Your task to perform on an android device: Open calendar and show me the fourth week of next month Image 0: 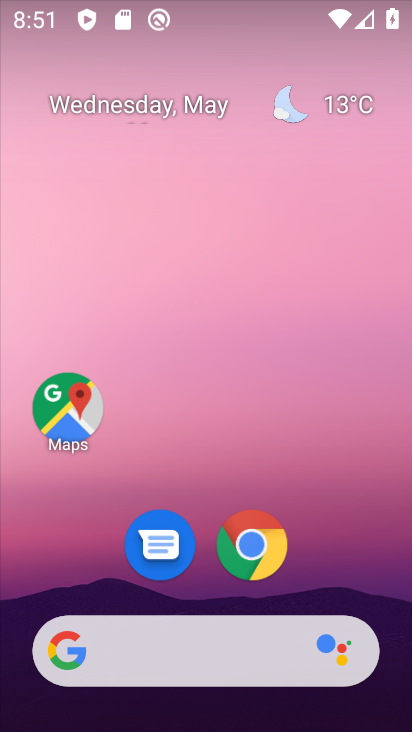
Step 0: drag from (329, 529) to (230, 24)
Your task to perform on an android device: Open calendar and show me the fourth week of next month Image 1: 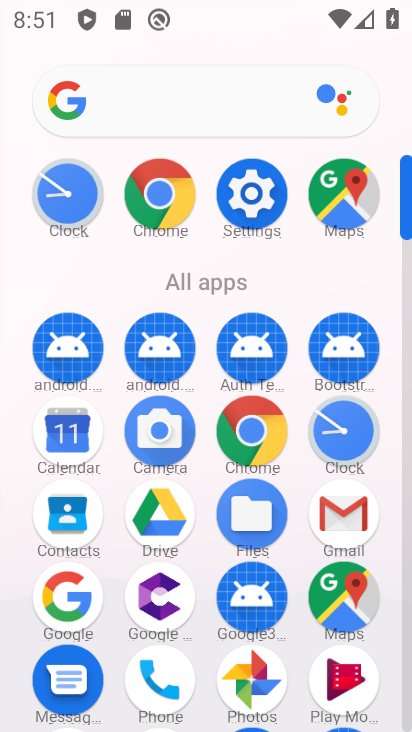
Step 1: drag from (9, 566) to (16, 193)
Your task to perform on an android device: Open calendar and show me the fourth week of next month Image 2: 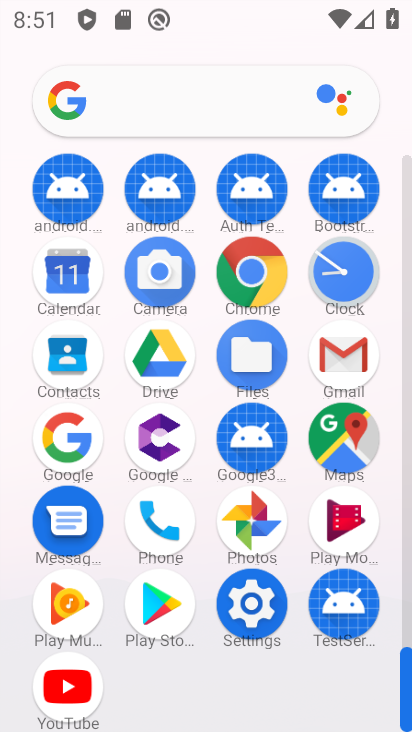
Step 2: drag from (3, 576) to (14, 260)
Your task to perform on an android device: Open calendar and show me the fourth week of next month Image 3: 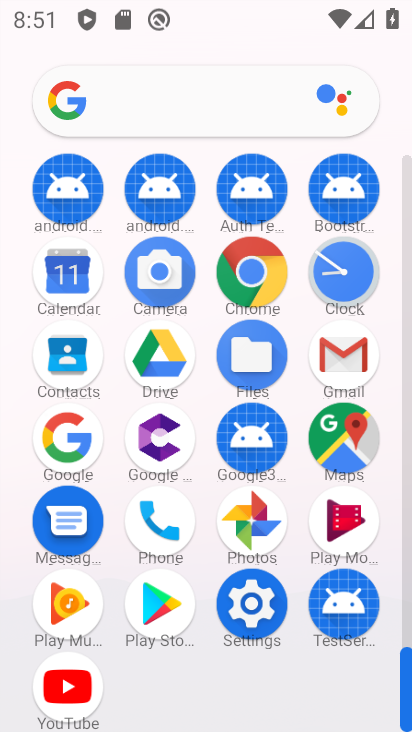
Step 3: click (68, 266)
Your task to perform on an android device: Open calendar and show me the fourth week of next month Image 4: 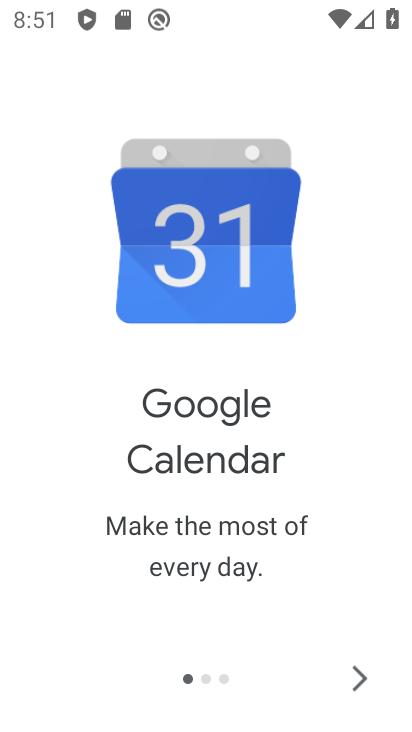
Step 4: click (360, 663)
Your task to perform on an android device: Open calendar and show me the fourth week of next month Image 5: 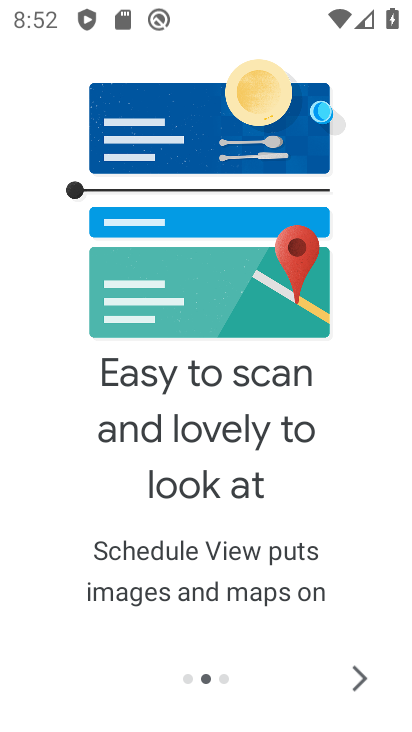
Step 5: click (356, 673)
Your task to perform on an android device: Open calendar and show me the fourth week of next month Image 6: 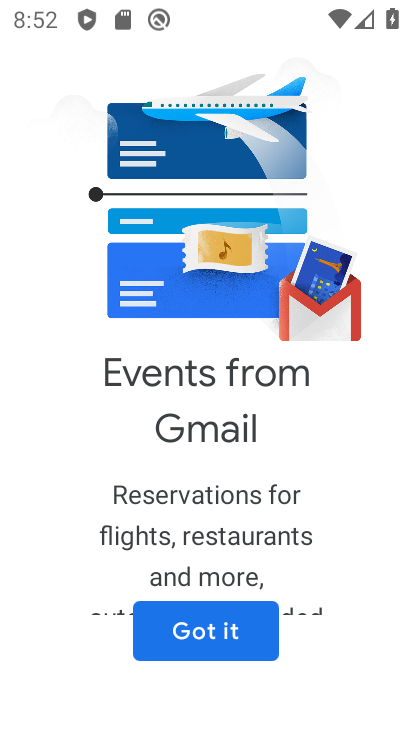
Step 6: click (230, 628)
Your task to perform on an android device: Open calendar and show me the fourth week of next month Image 7: 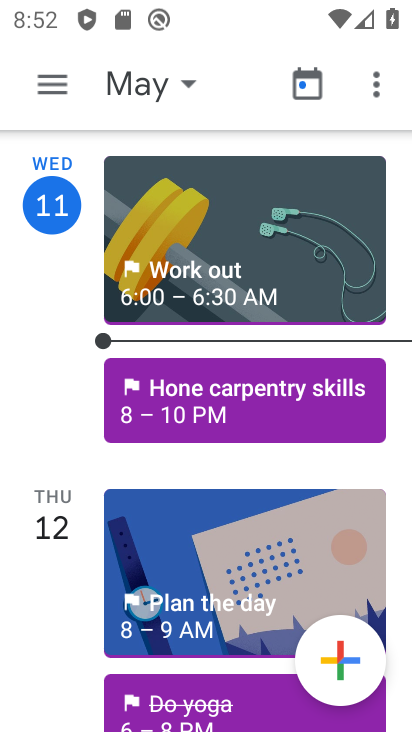
Step 7: click (137, 83)
Your task to perform on an android device: Open calendar and show me the fourth week of next month Image 8: 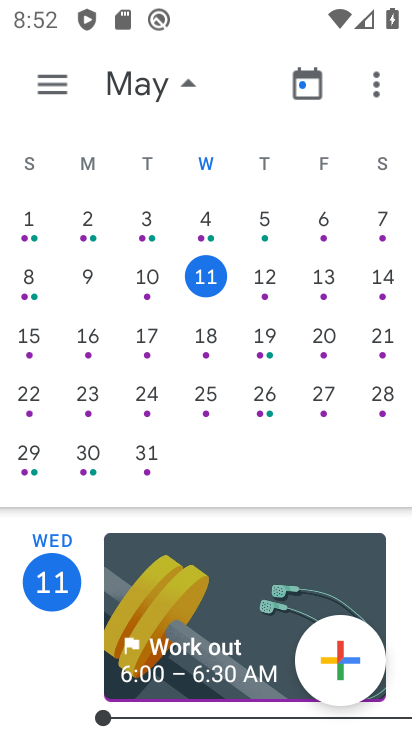
Step 8: drag from (409, 341) to (0, 238)
Your task to perform on an android device: Open calendar and show me the fourth week of next month Image 9: 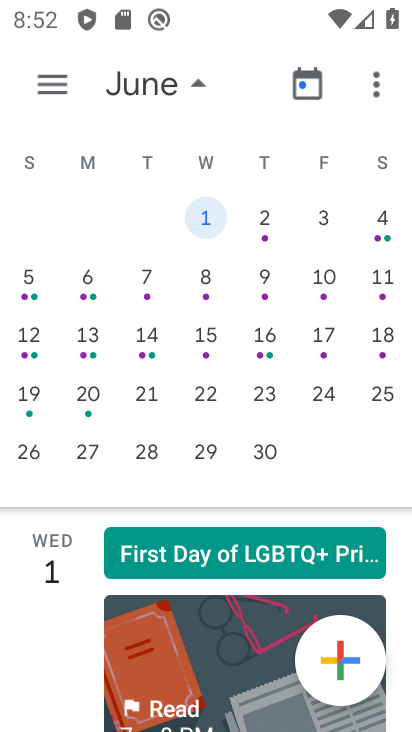
Step 9: click (19, 399)
Your task to perform on an android device: Open calendar and show me the fourth week of next month Image 10: 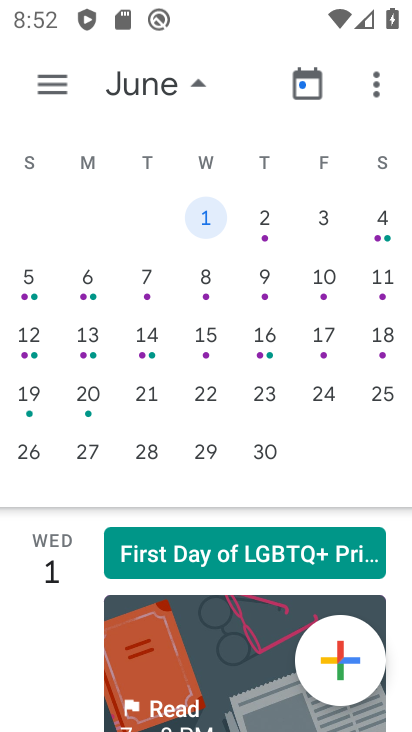
Step 10: click (35, 391)
Your task to perform on an android device: Open calendar and show me the fourth week of next month Image 11: 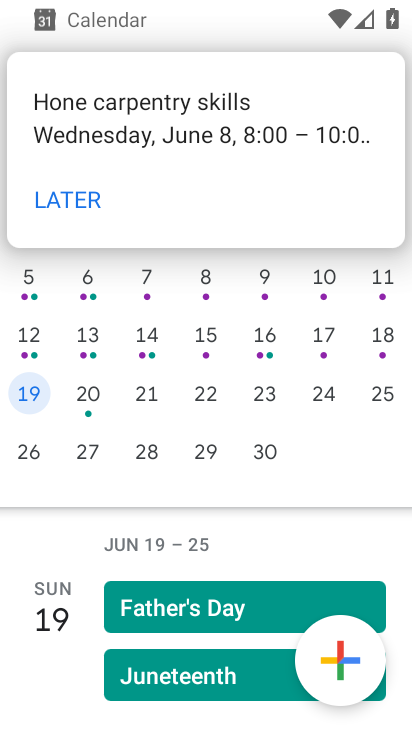
Step 11: click (78, 200)
Your task to perform on an android device: Open calendar and show me the fourth week of next month Image 12: 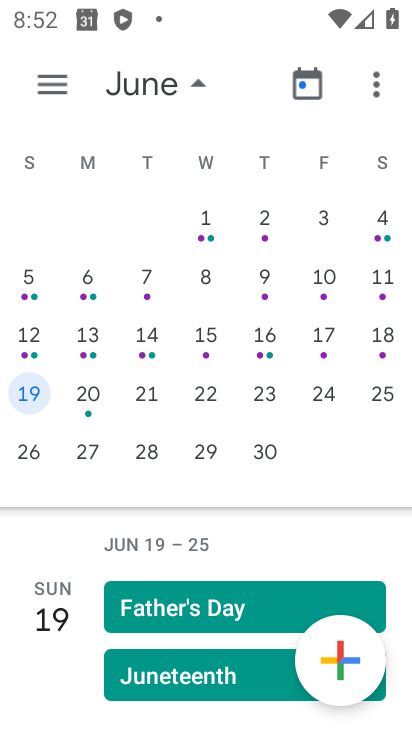
Step 12: click (58, 79)
Your task to perform on an android device: Open calendar and show me the fourth week of next month Image 13: 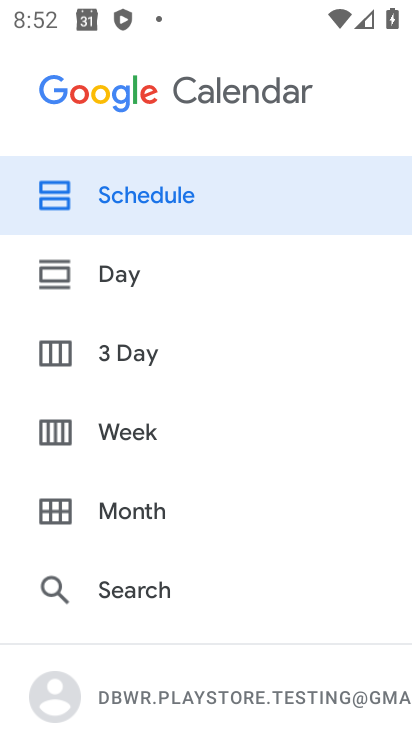
Step 13: click (142, 428)
Your task to perform on an android device: Open calendar and show me the fourth week of next month Image 14: 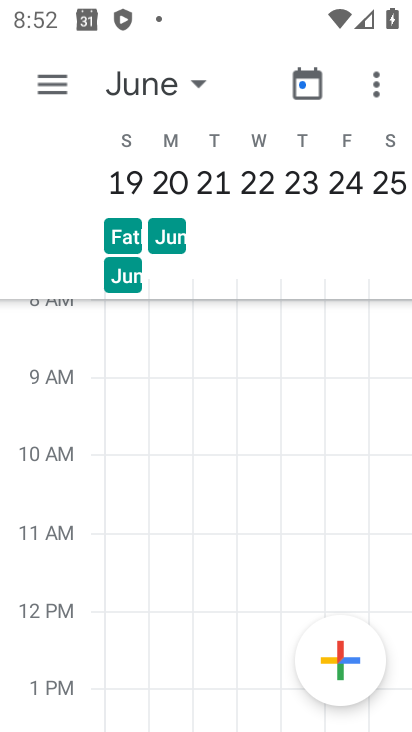
Step 14: task complete